Your task to perform on an android device: turn off wifi Image 0: 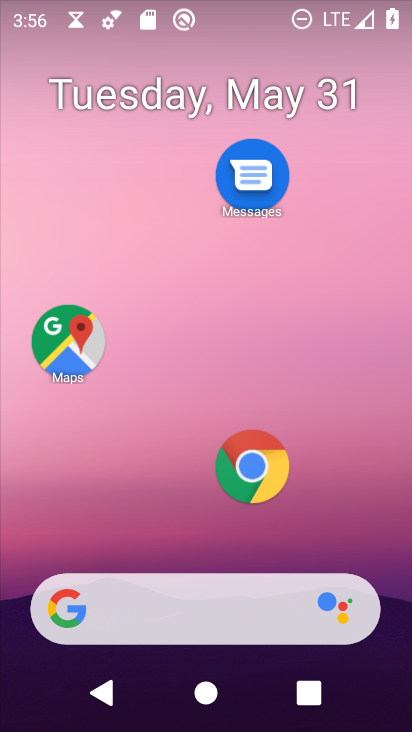
Step 0: drag from (126, 23) to (190, 502)
Your task to perform on an android device: turn off wifi Image 1: 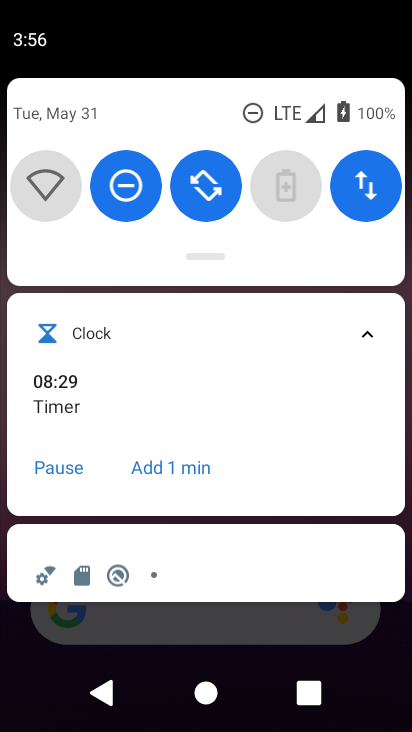
Step 1: task complete